Your task to perform on an android device: Open Reddit.com Image 0: 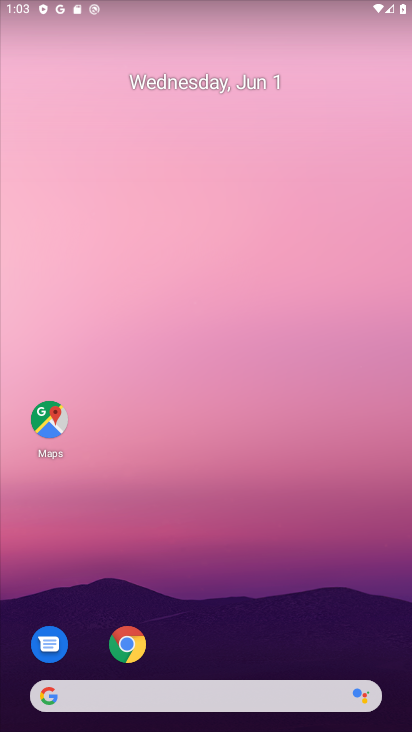
Step 0: press home button
Your task to perform on an android device: Open Reddit.com Image 1: 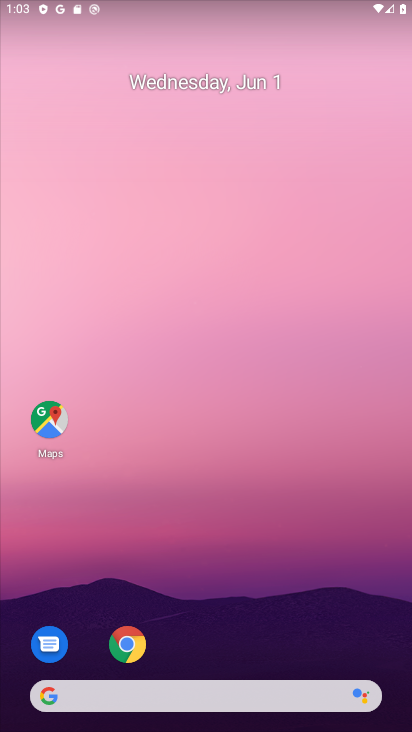
Step 1: click (126, 653)
Your task to perform on an android device: Open Reddit.com Image 2: 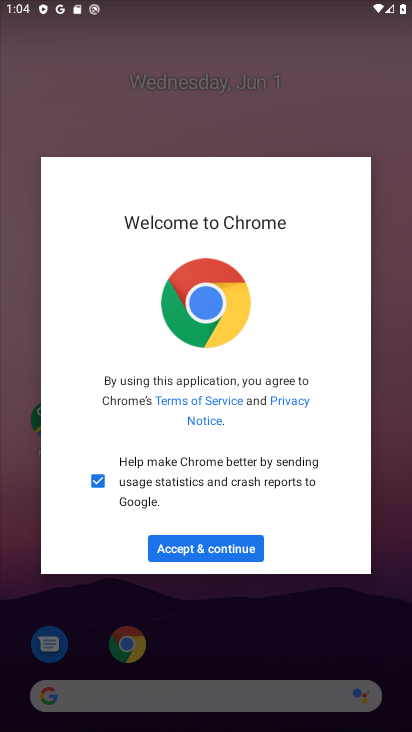
Step 2: click (239, 554)
Your task to perform on an android device: Open Reddit.com Image 3: 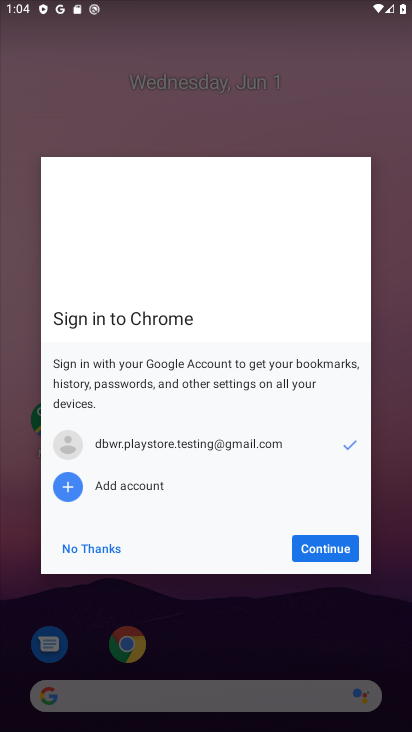
Step 3: click (309, 545)
Your task to perform on an android device: Open Reddit.com Image 4: 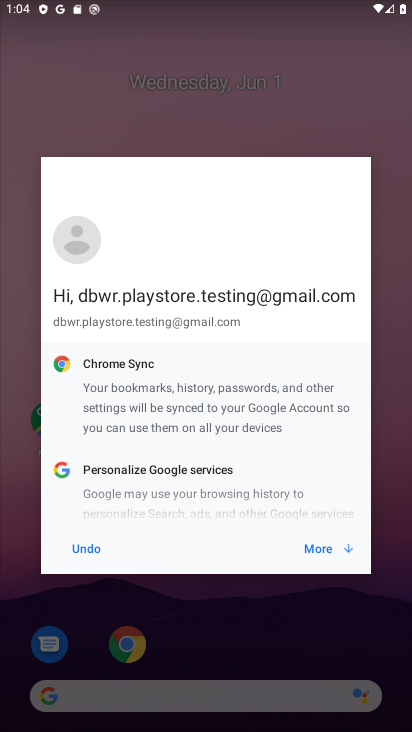
Step 4: click (309, 546)
Your task to perform on an android device: Open Reddit.com Image 5: 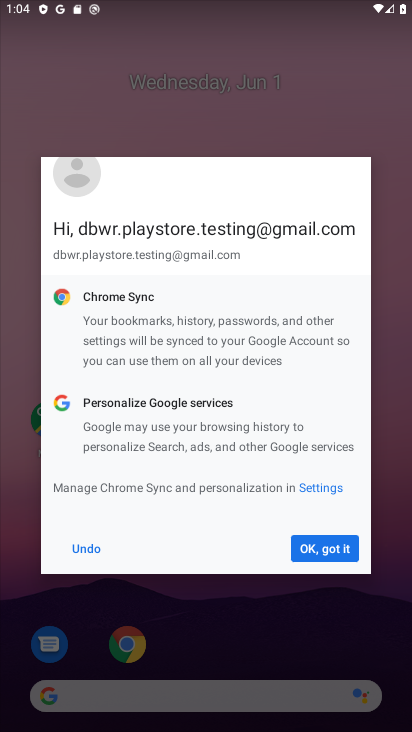
Step 5: click (320, 546)
Your task to perform on an android device: Open Reddit.com Image 6: 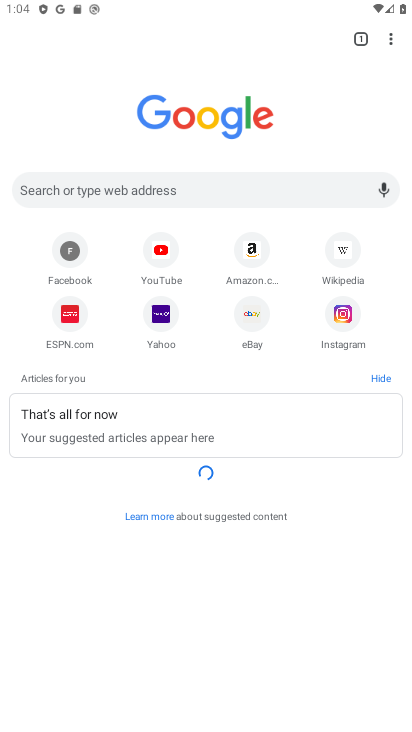
Step 6: click (131, 189)
Your task to perform on an android device: Open Reddit.com Image 7: 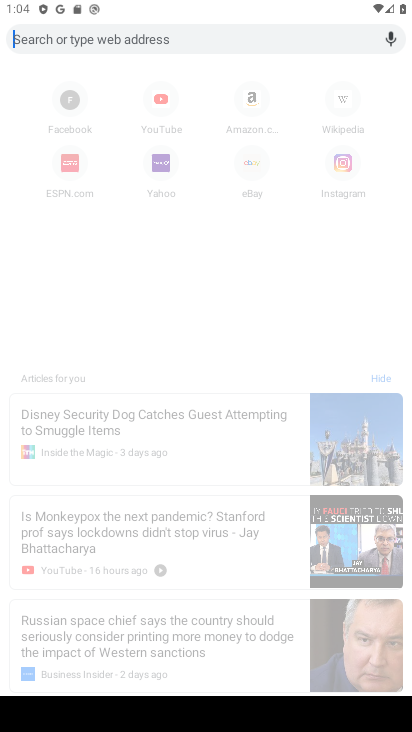
Step 7: type "reddit.com"
Your task to perform on an android device: Open Reddit.com Image 8: 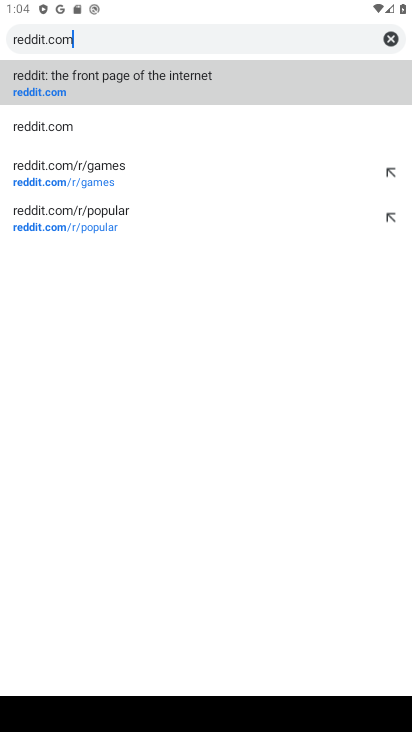
Step 8: click (116, 81)
Your task to perform on an android device: Open Reddit.com Image 9: 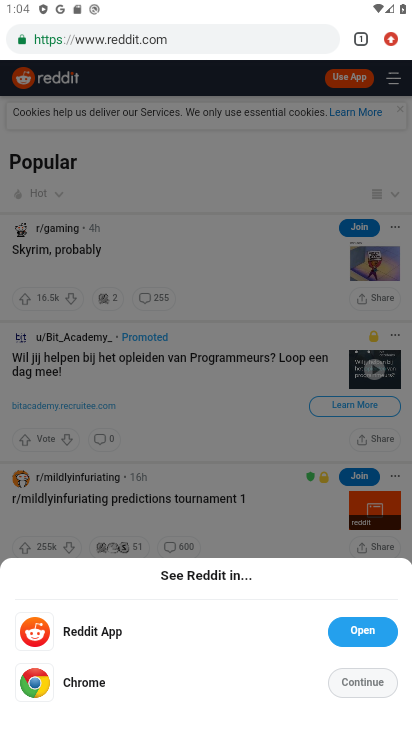
Step 9: task complete